Your task to perform on an android device: What's the weather going to be tomorrow? Image 0: 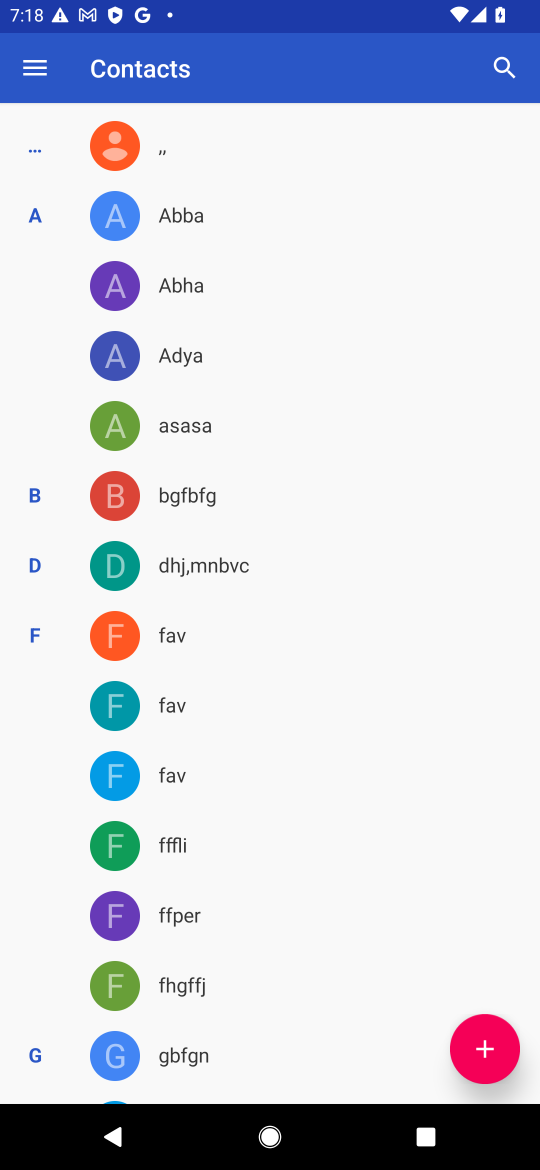
Step 0: press home button
Your task to perform on an android device: What's the weather going to be tomorrow? Image 1: 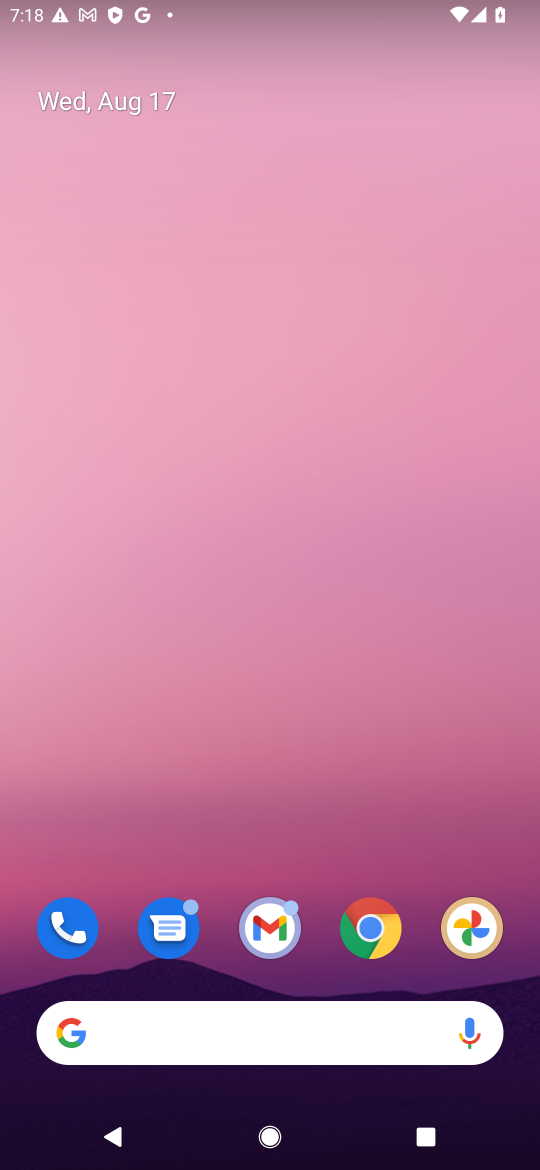
Step 1: click (370, 922)
Your task to perform on an android device: What's the weather going to be tomorrow? Image 2: 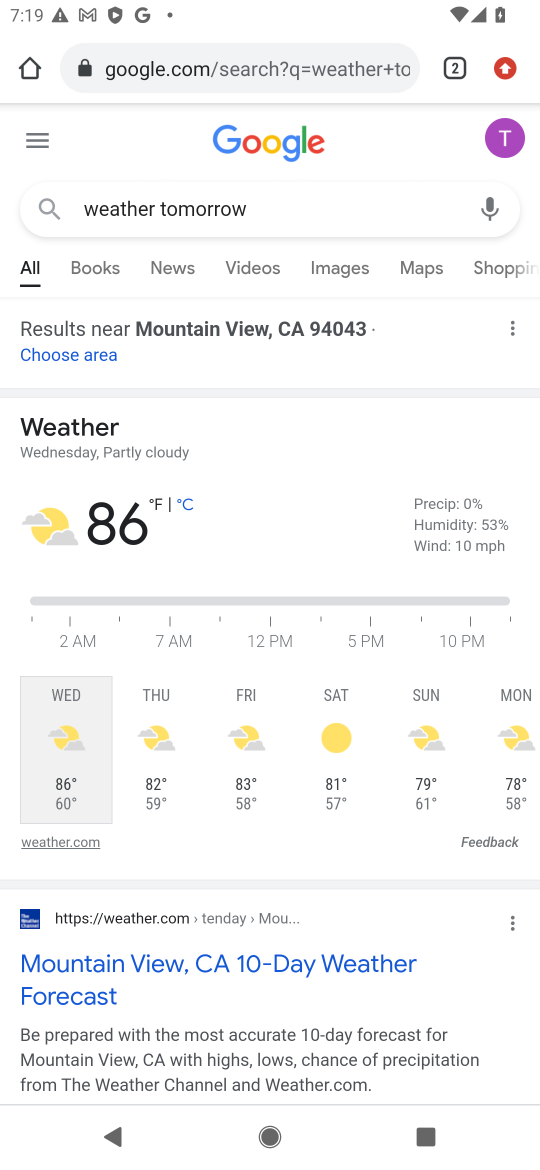
Step 2: click (277, 76)
Your task to perform on an android device: What's the weather going to be tomorrow? Image 3: 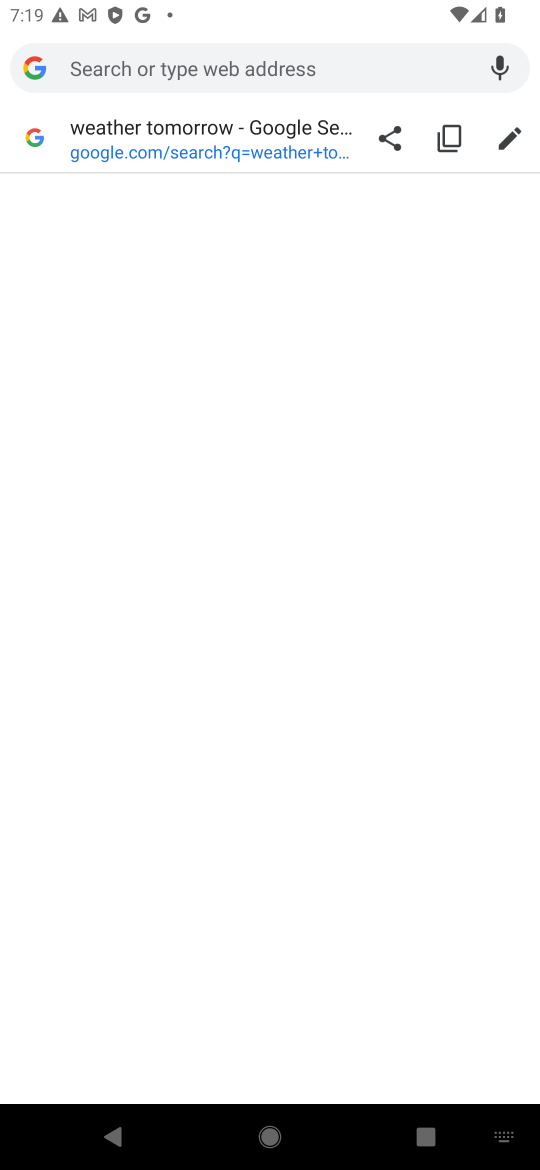
Step 3: type "weather tomorrow"
Your task to perform on an android device: What's the weather going to be tomorrow? Image 4: 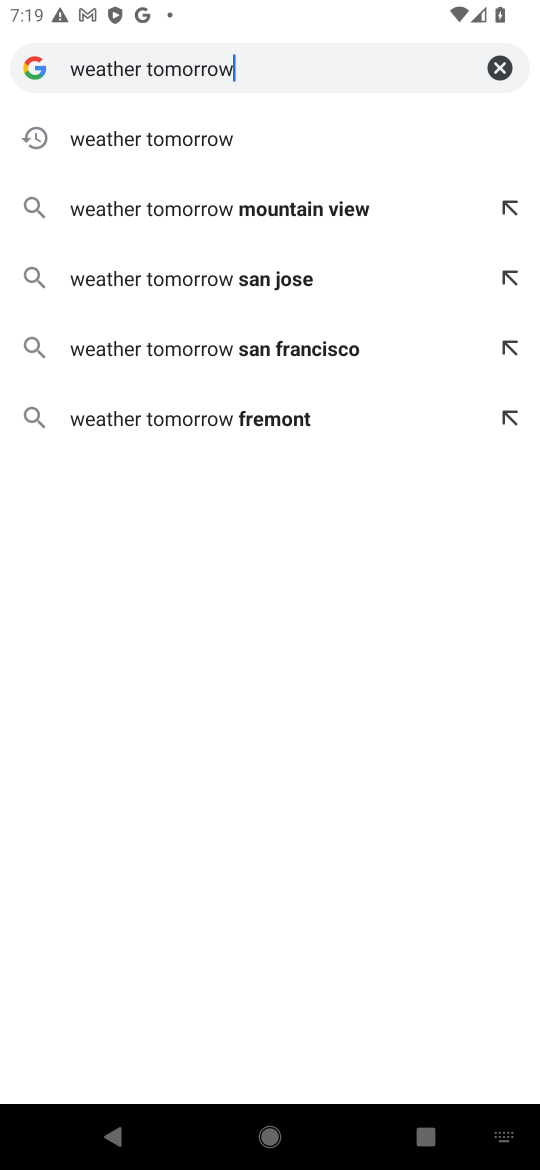
Step 4: click (167, 150)
Your task to perform on an android device: What's the weather going to be tomorrow? Image 5: 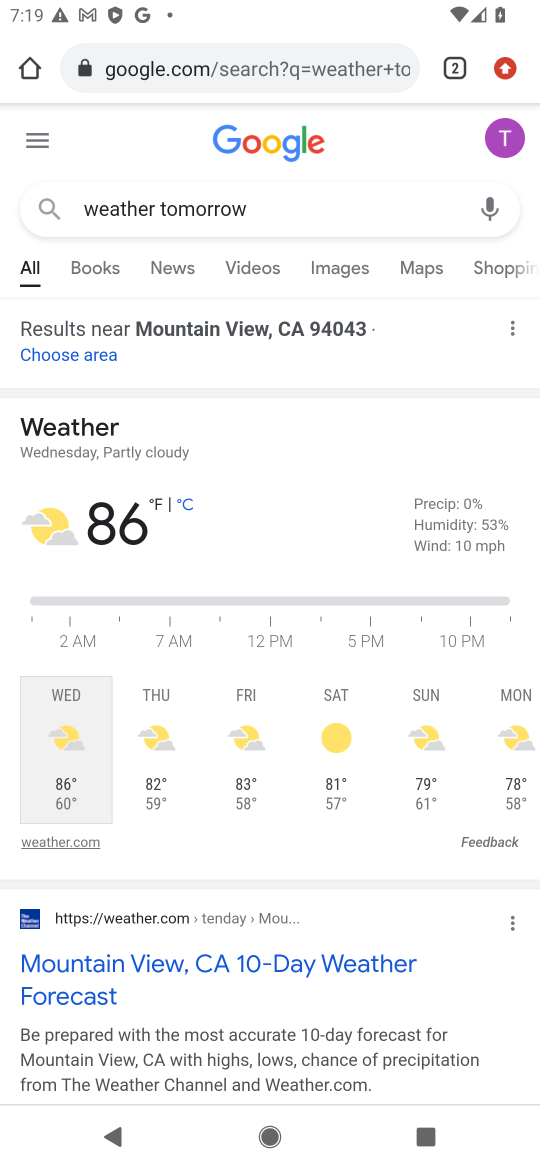
Step 5: task complete